Your task to perform on an android device: allow cookies in the chrome app Image 0: 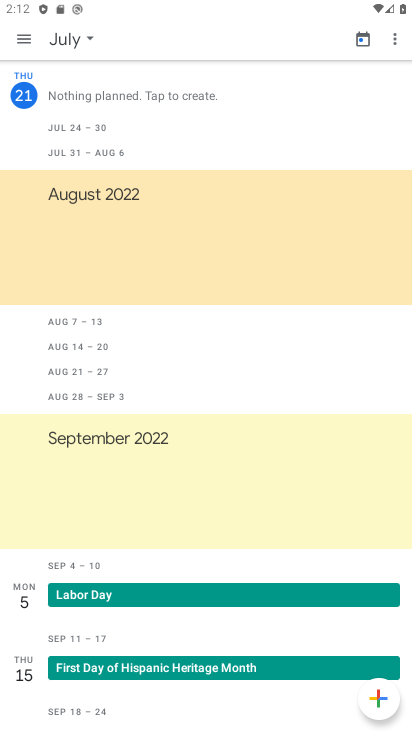
Step 0: press home button
Your task to perform on an android device: allow cookies in the chrome app Image 1: 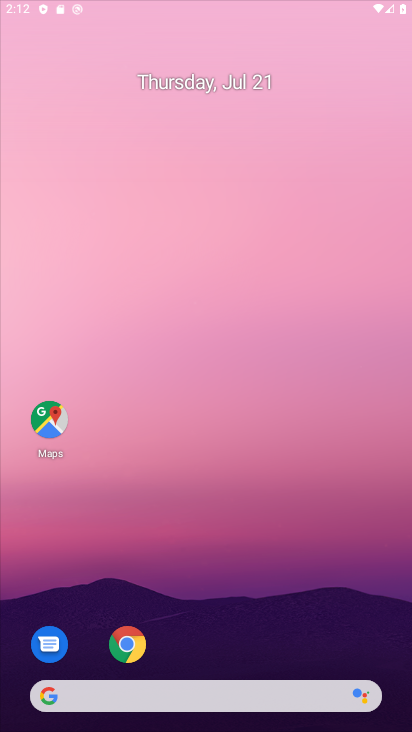
Step 1: drag from (314, 694) to (341, 80)
Your task to perform on an android device: allow cookies in the chrome app Image 2: 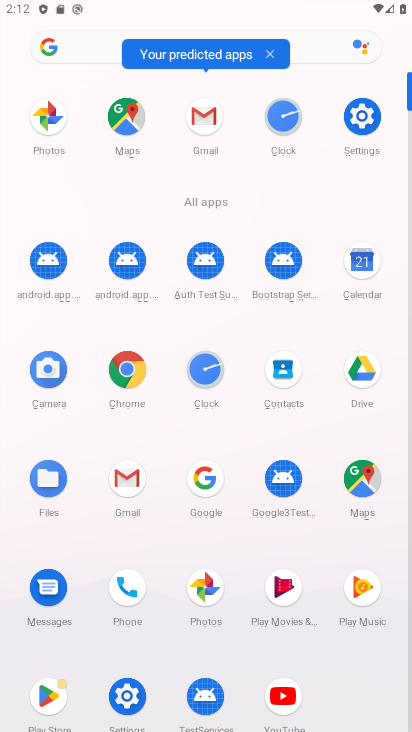
Step 2: click (136, 372)
Your task to perform on an android device: allow cookies in the chrome app Image 3: 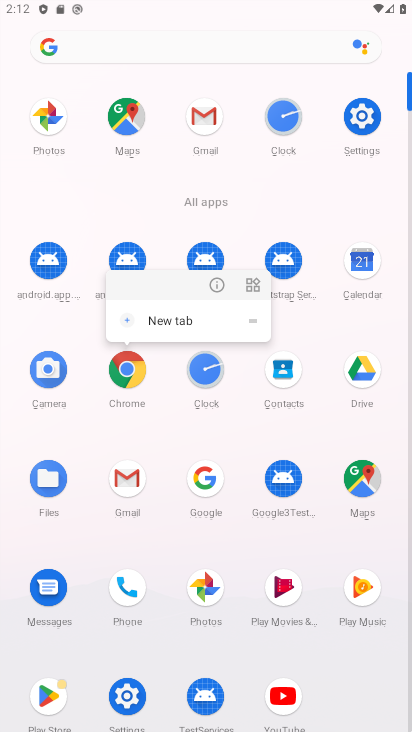
Step 3: click (137, 372)
Your task to perform on an android device: allow cookies in the chrome app Image 4: 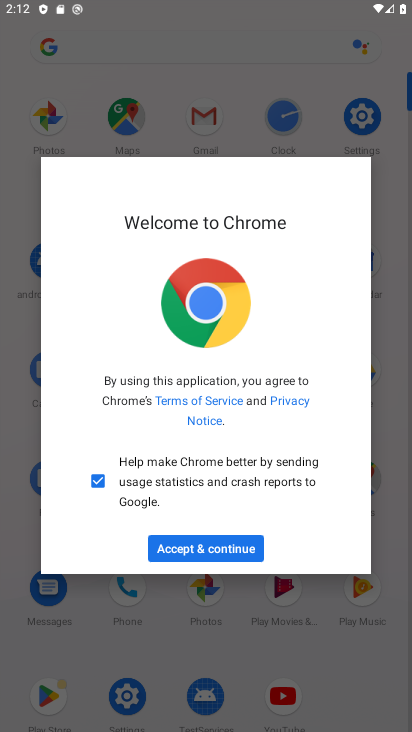
Step 4: click (194, 529)
Your task to perform on an android device: allow cookies in the chrome app Image 5: 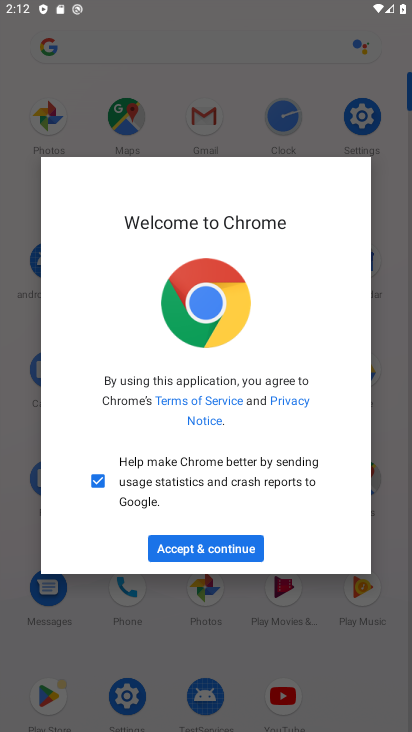
Step 5: click (191, 546)
Your task to perform on an android device: allow cookies in the chrome app Image 6: 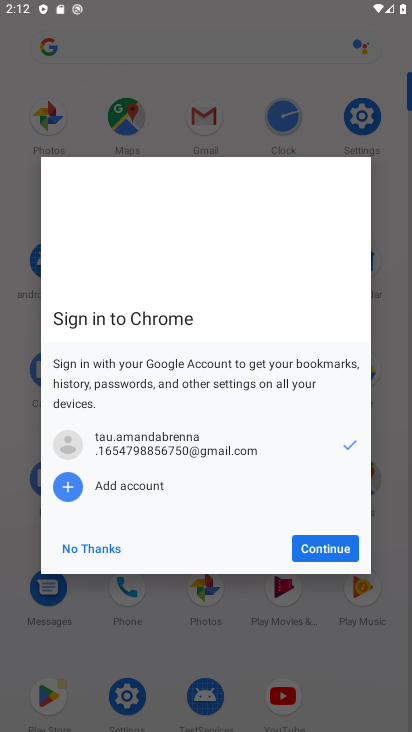
Step 6: click (95, 540)
Your task to perform on an android device: allow cookies in the chrome app Image 7: 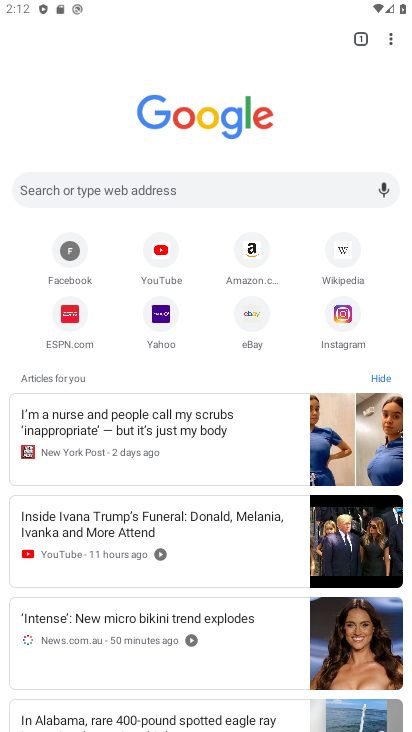
Step 7: drag from (387, 28) to (323, 336)
Your task to perform on an android device: allow cookies in the chrome app Image 8: 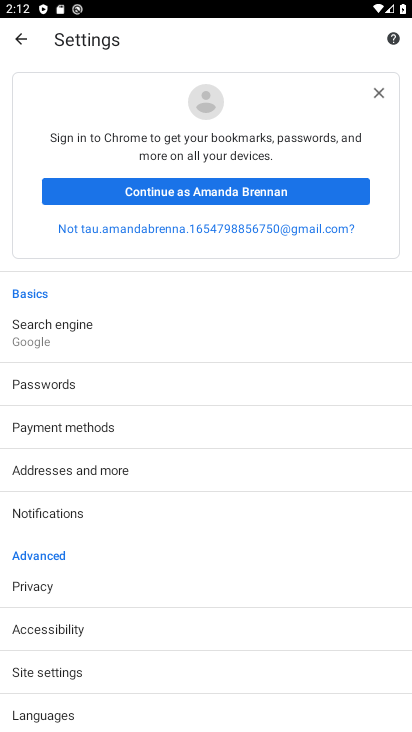
Step 8: click (21, 579)
Your task to perform on an android device: allow cookies in the chrome app Image 9: 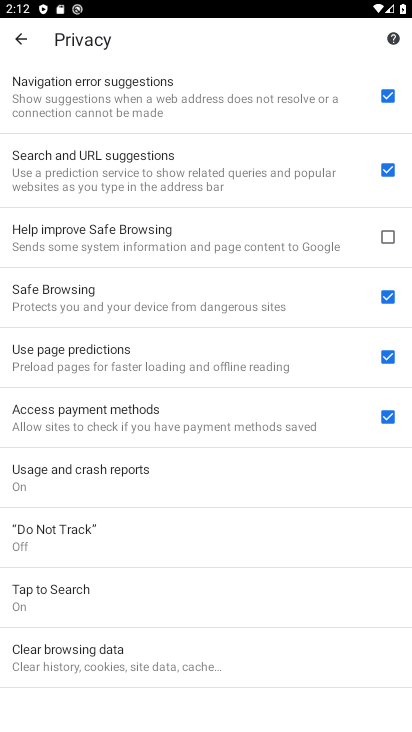
Step 9: task complete